Your task to perform on an android device: Show me popular games on the Play Store Image 0: 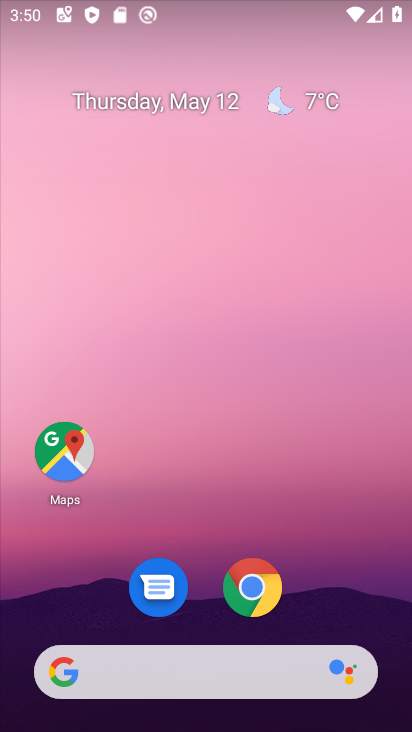
Step 0: drag from (327, 612) to (271, 192)
Your task to perform on an android device: Show me popular games on the Play Store Image 1: 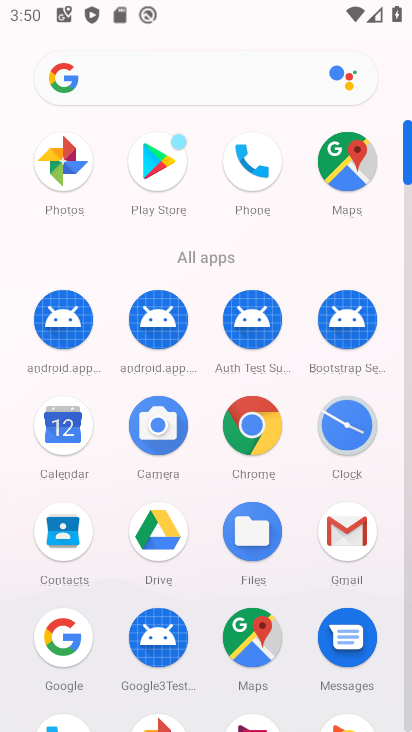
Step 1: click (174, 155)
Your task to perform on an android device: Show me popular games on the Play Store Image 2: 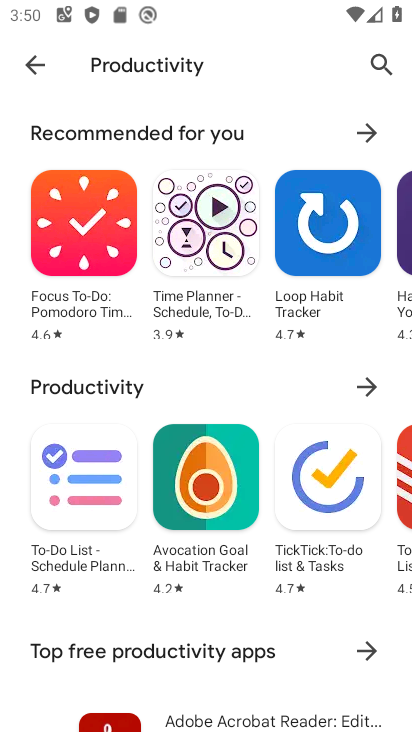
Step 2: press back button
Your task to perform on an android device: Show me popular games on the Play Store Image 3: 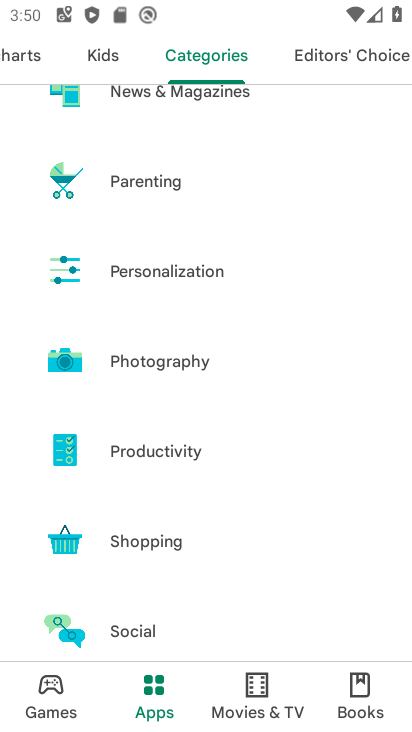
Step 3: click (36, 711)
Your task to perform on an android device: Show me popular games on the Play Store Image 4: 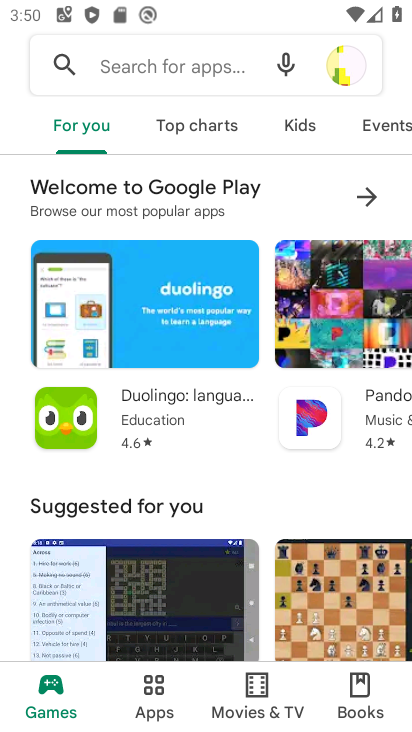
Step 4: drag from (210, 545) to (202, 193)
Your task to perform on an android device: Show me popular games on the Play Store Image 5: 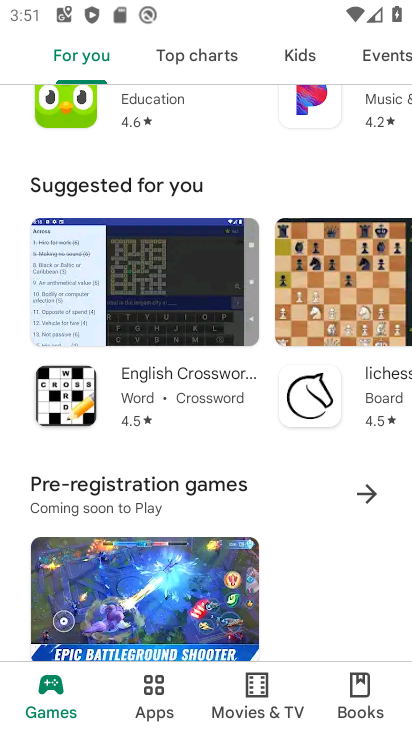
Step 5: drag from (223, 570) to (216, 216)
Your task to perform on an android device: Show me popular games on the Play Store Image 6: 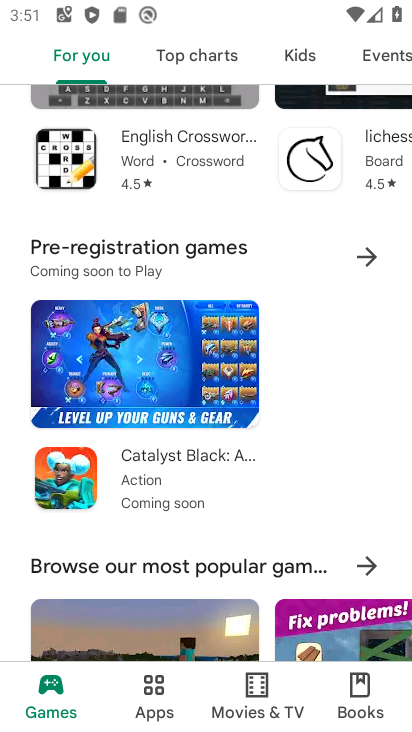
Step 6: click (244, 569)
Your task to perform on an android device: Show me popular games on the Play Store Image 7: 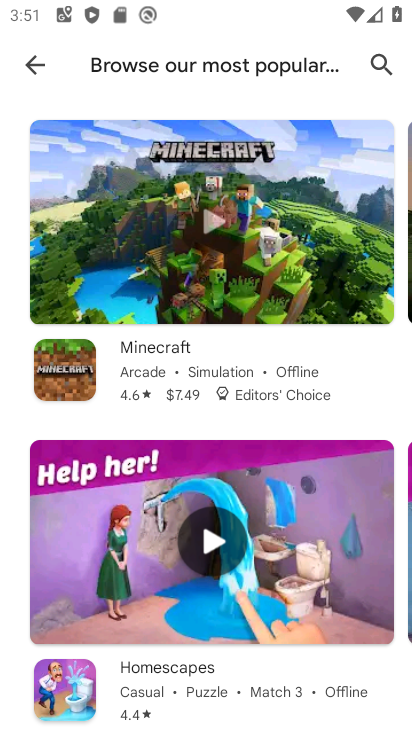
Step 7: task complete